Your task to perform on an android device: Go to calendar. Show me events next week Image 0: 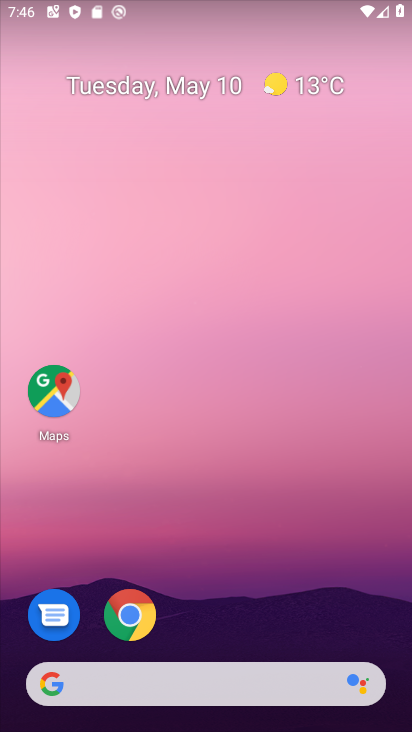
Step 0: drag from (241, 588) to (187, 47)
Your task to perform on an android device: Go to calendar. Show me events next week Image 1: 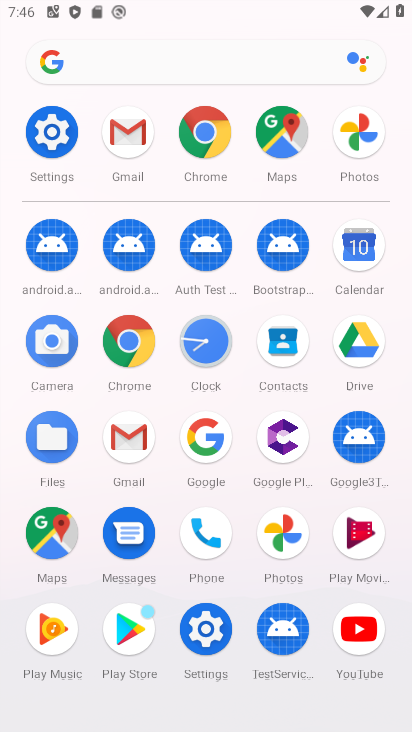
Step 1: click (342, 249)
Your task to perform on an android device: Go to calendar. Show me events next week Image 2: 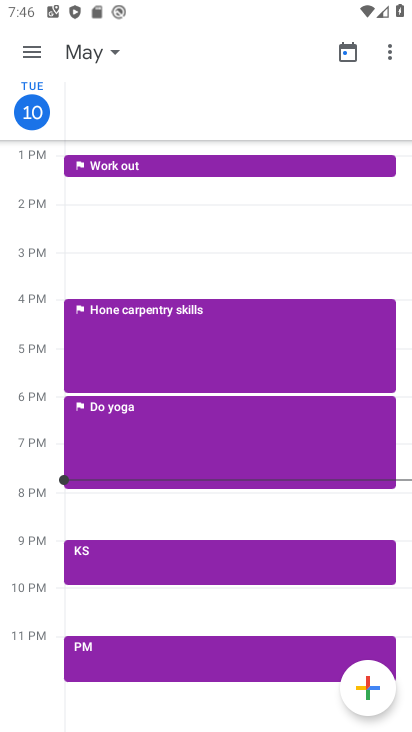
Step 2: click (38, 49)
Your task to perform on an android device: Go to calendar. Show me events next week Image 3: 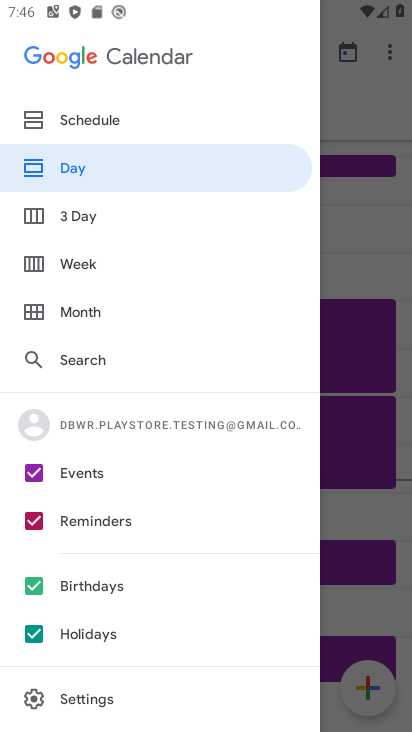
Step 3: click (75, 266)
Your task to perform on an android device: Go to calendar. Show me events next week Image 4: 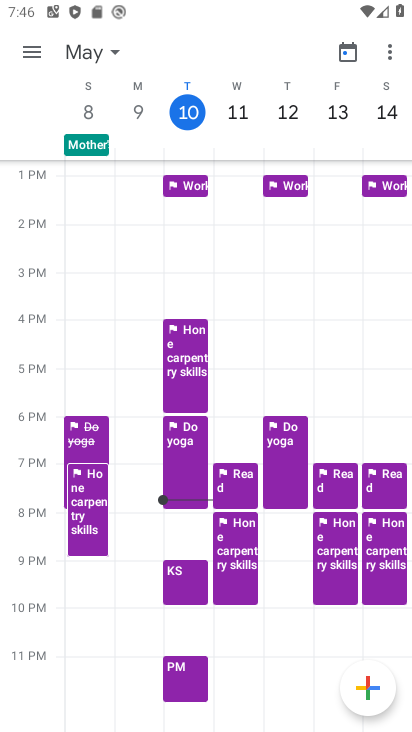
Step 4: click (119, 53)
Your task to perform on an android device: Go to calendar. Show me events next week Image 5: 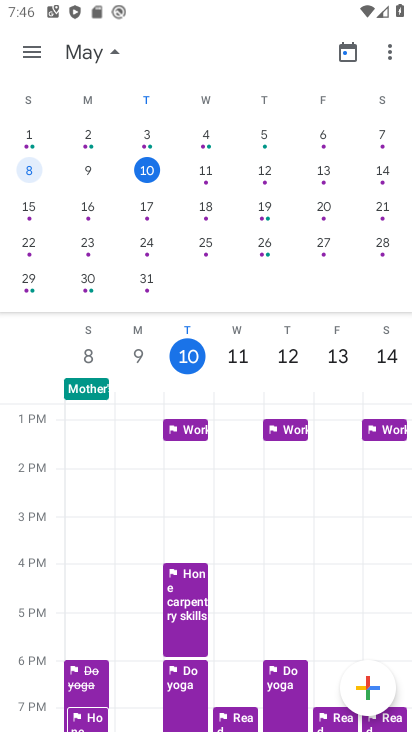
Step 5: drag from (369, 215) to (21, 221)
Your task to perform on an android device: Go to calendar. Show me events next week Image 6: 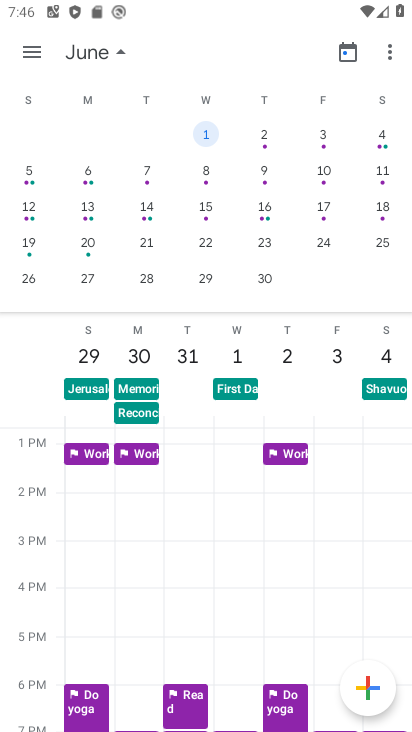
Step 6: drag from (38, 176) to (383, 316)
Your task to perform on an android device: Go to calendar. Show me events next week Image 7: 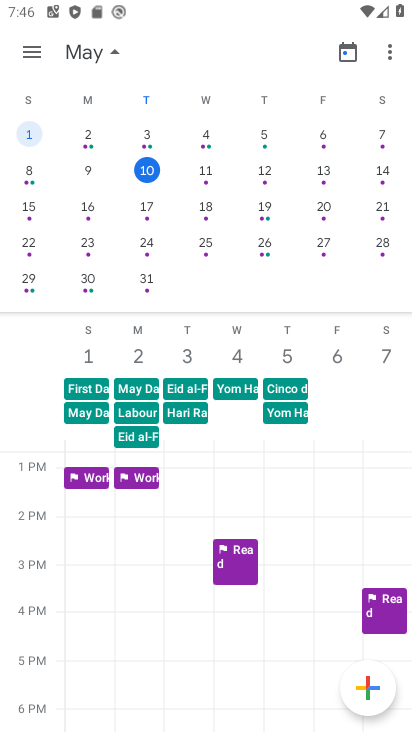
Step 7: click (148, 204)
Your task to perform on an android device: Go to calendar. Show me events next week Image 8: 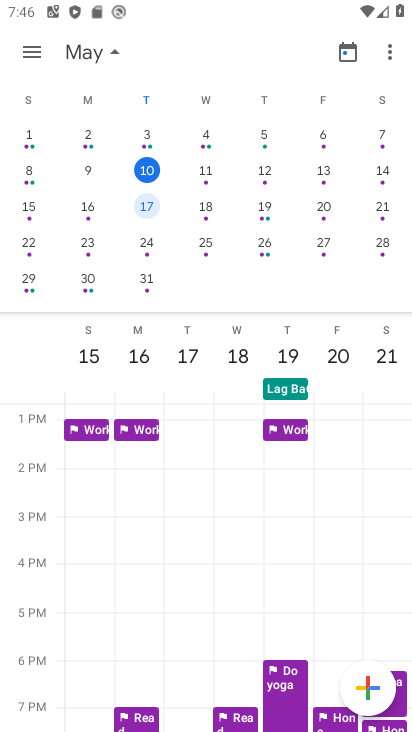
Step 8: task complete